Your task to perform on an android device: Go to accessibility settings Image 0: 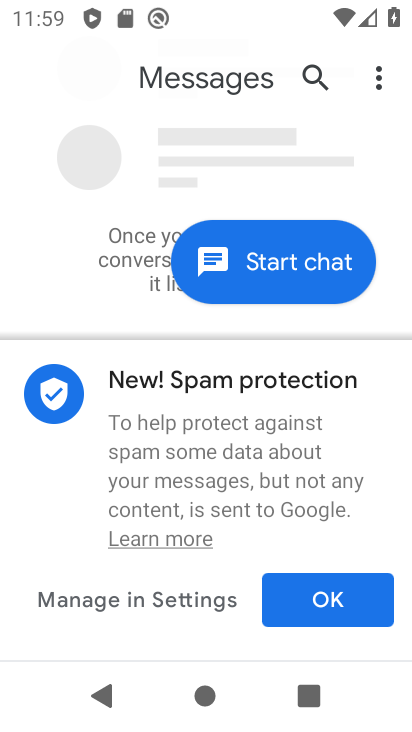
Step 0: press home button
Your task to perform on an android device: Go to accessibility settings Image 1: 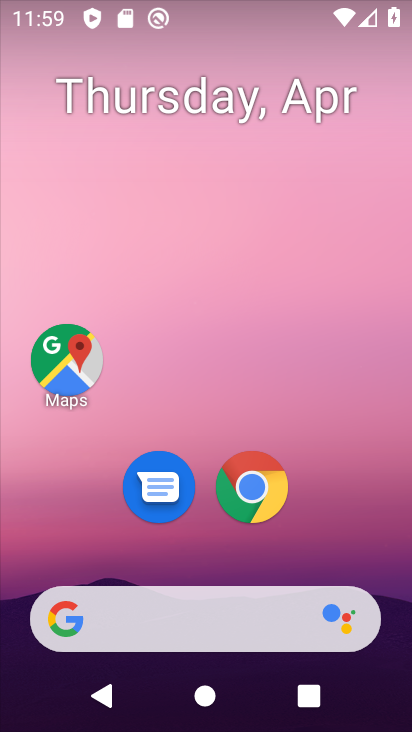
Step 1: drag from (343, 516) to (312, 102)
Your task to perform on an android device: Go to accessibility settings Image 2: 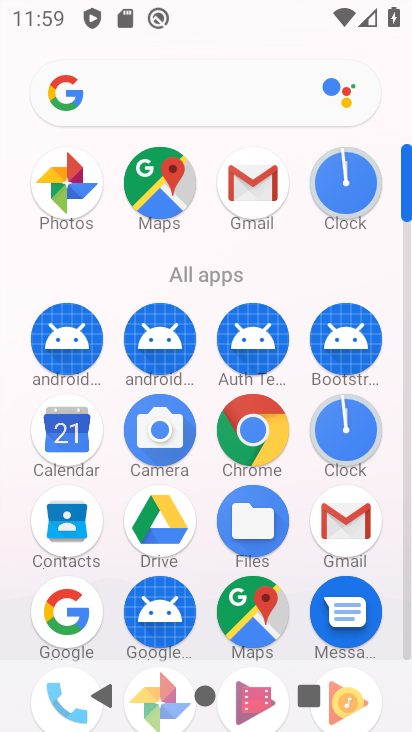
Step 2: drag from (211, 554) to (201, 191)
Your task to perform on an android device: Go to accessibility settings Image 3: 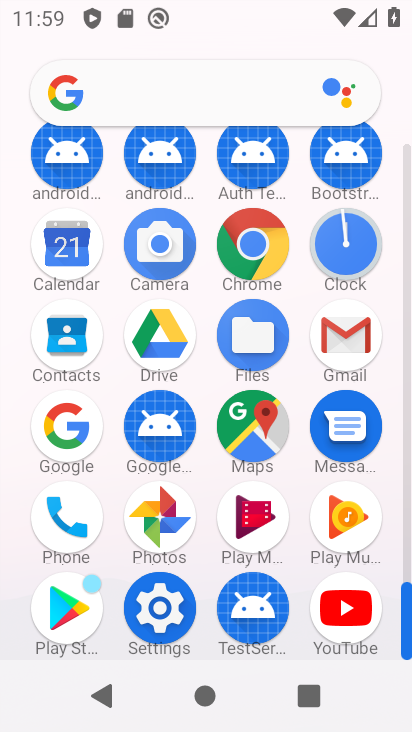
Step 3: click (169, 600)
Your task to perform on an android device: Go to accessibility settings Image 4: 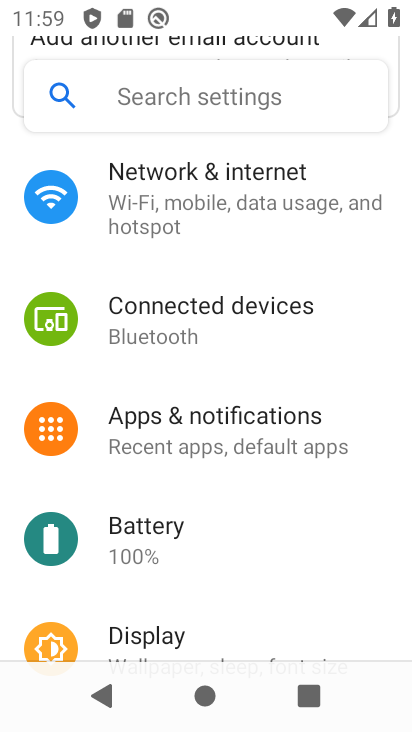
Step 4: drag from (243, 607) to (257, 222)
Your task to perform on an android device: Go to accessibility settings Image 5: 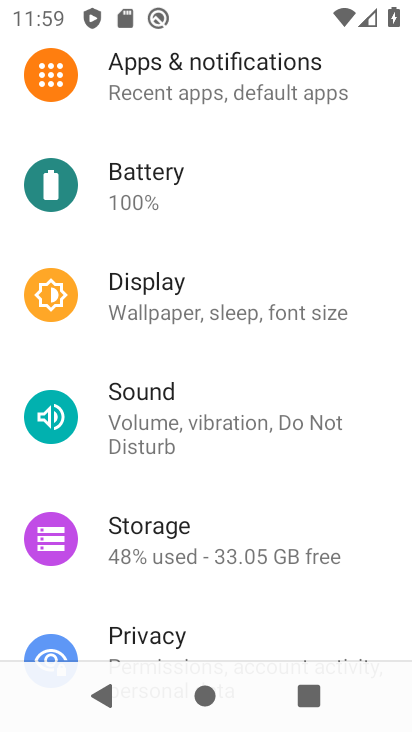
Step 5: drag from (267, 610) to (245, 212)
Your task to perform on an android device: Go to accessibility settings Image 6: 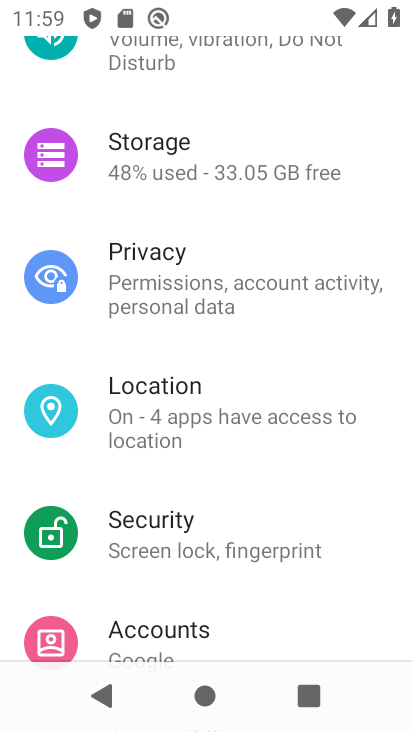
Step 6: drag from (259, 584) to (253, 199)
Your task to perform on an android device: Go to accessibility settings Image 7: 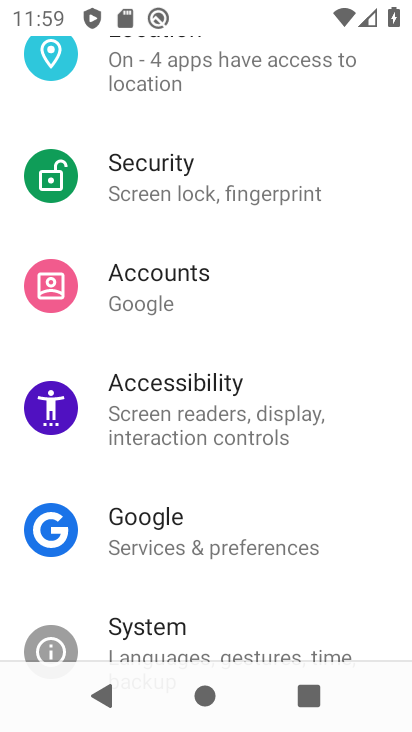
Step 7: click (253, 402)
Your task to perform on an android device: Go to accessibility settings Image 8: 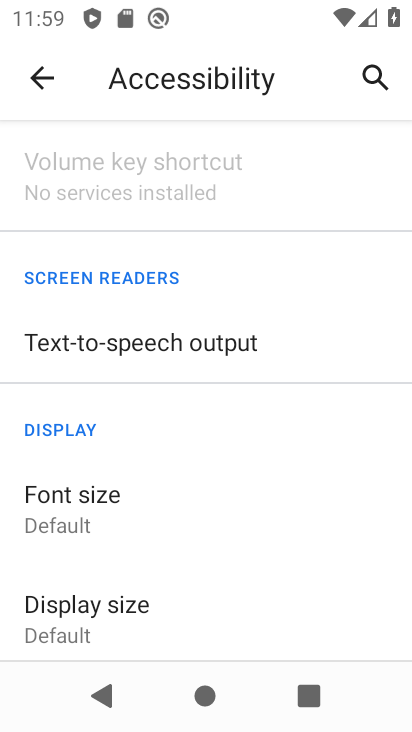
Step 8: task complete